Your task to perform on an android device: turn pop-ups on in chrome Image 0: 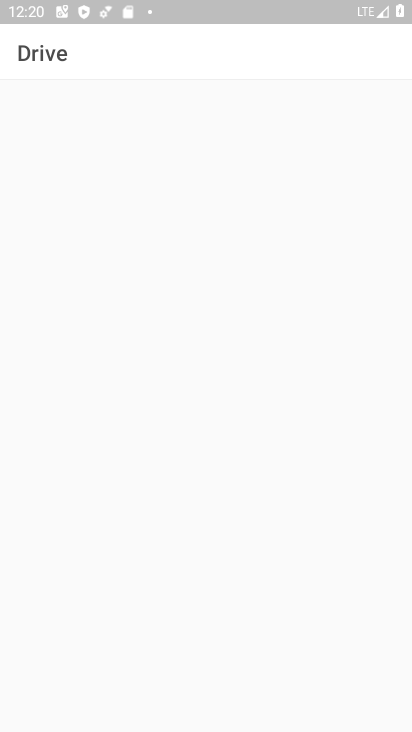
Step 0: press home button
Your task to perform on an android device: turn pop-ups on in chrome Image 1: 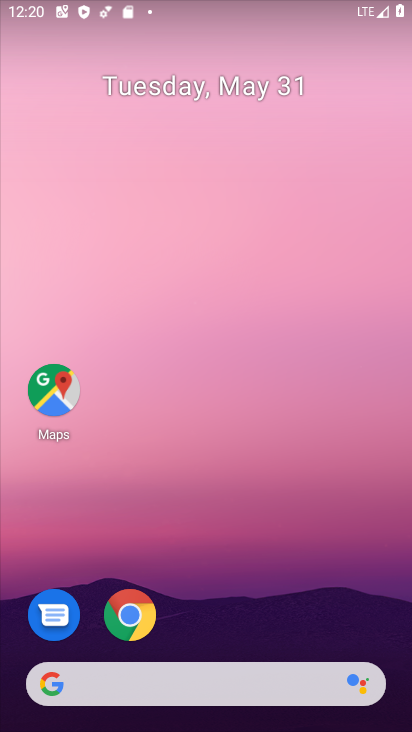
Step 1: click (146, 580)
Your task to perform on an android device: turn pop-ups on in chrome Image 2: 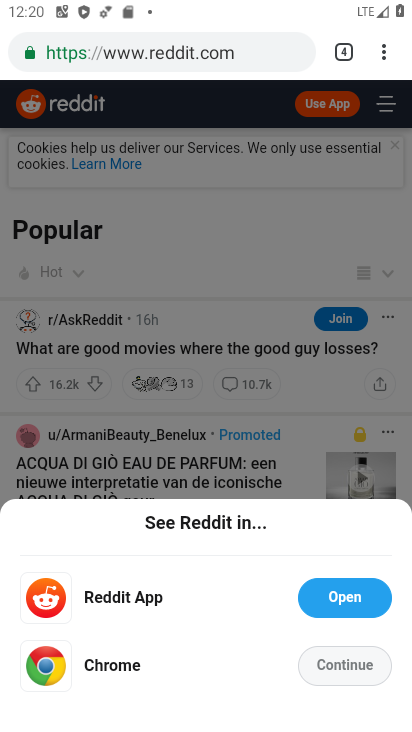
Step 2: click (390, 63)
Your task to perform on an android device: turn pop-ups on in chrome Image 3: 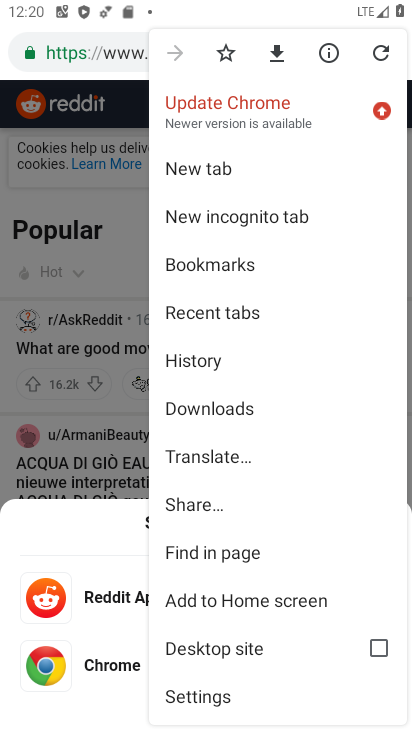
Step 3: drag from (210, 590) to (245, 322)
Your task to perform on an android device: turn pop-ups on in chrome Image 4: 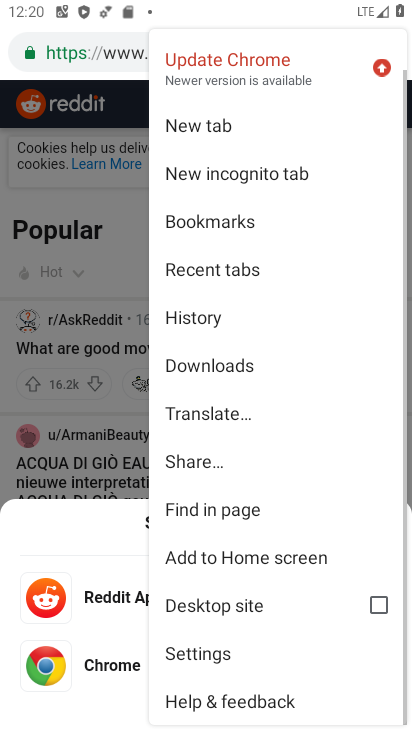
Step 4: click (213, 657)
Your task to perform on an android device: turn pop-ups on in chrome Image 5: 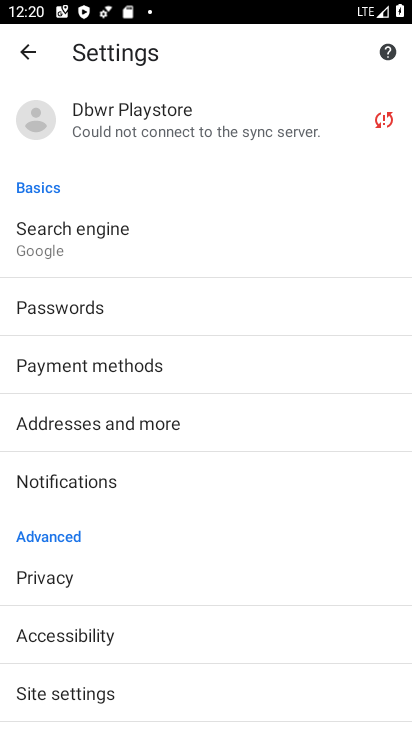
Step 5: drag from (103, 664) to (132, 488)
Your task to perform on an android device: turn pop-ups on in chrome Image 6: 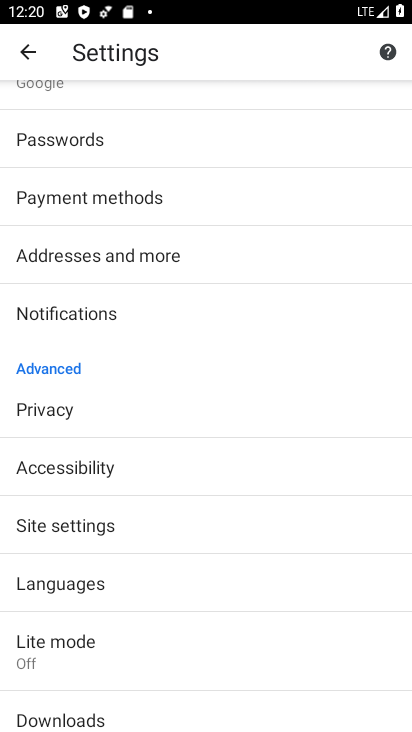
Step 6: click (84, 525)
Your task to perform on an android device: turn pop-ups on in chrome Image 7: 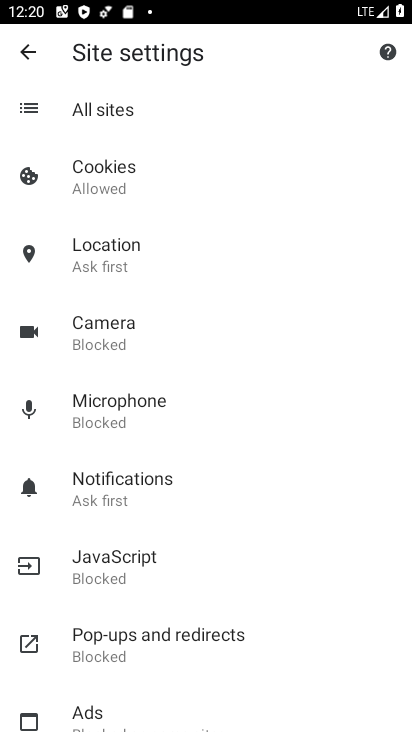
Step 7: click (127, 641)
Your task to perform on an android device: turn pop-ups on in chrome Image 8: 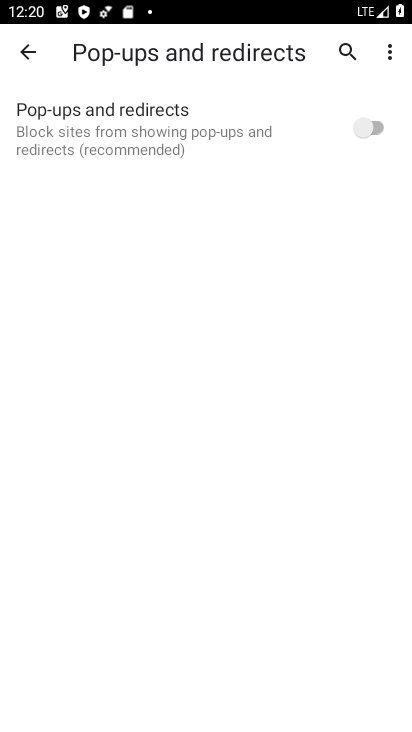
Step 8: click (395, 136)
Your task to perform on an android device: turn pop-ups on in chrome Image 9: 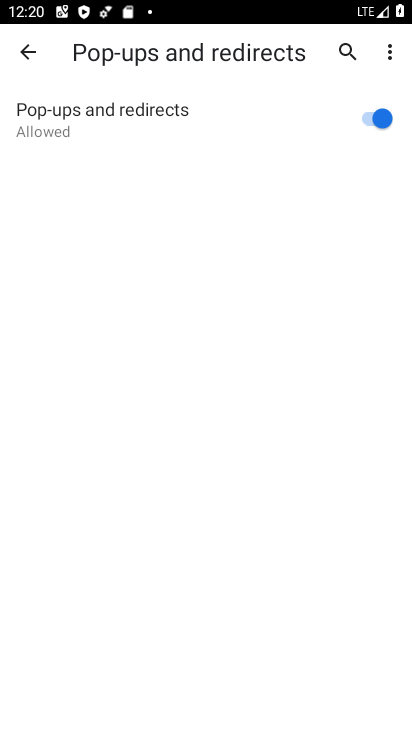
Step 9: task complete